Your task to perform on an android device: clear all cookies in the chrome app Image 0: 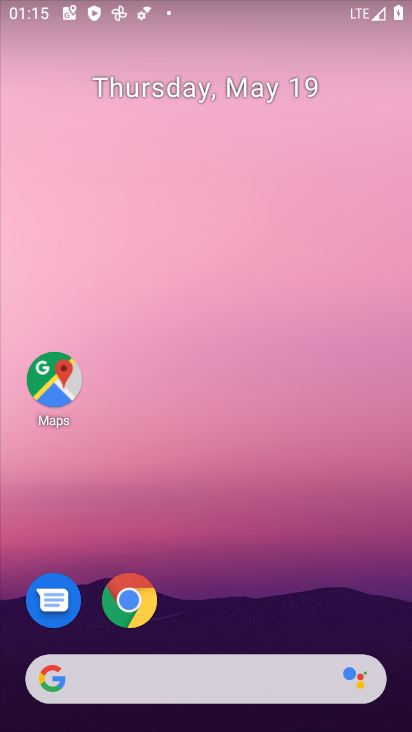
Step 0: click (129, 595)
Your task to perform on an android device: clear all cookies in the chrome app Image 1: 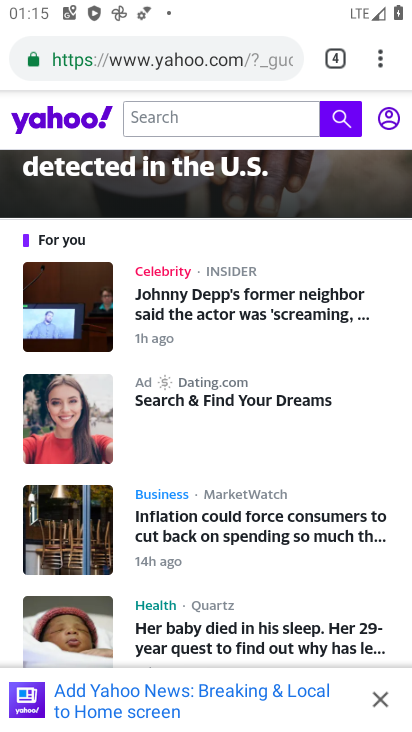
Step 1: click (386, 59)
Your task to perform on an android device: clear all cookies in the chrome app Image 2: 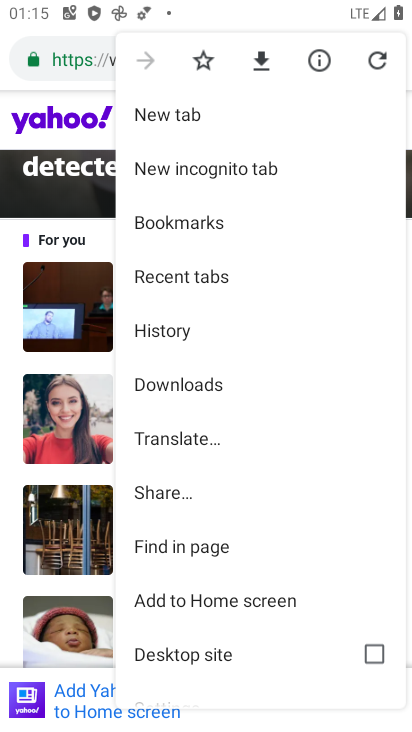
Step 2: click (168, 323)
Your task to perform on an android device: clear all cookies in the chrome app Image 3: 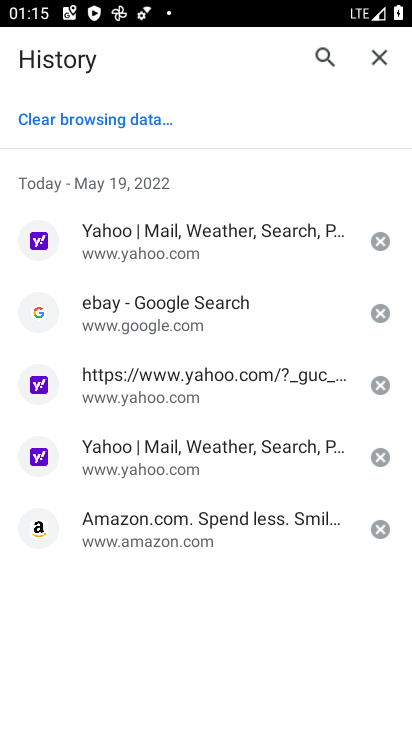
Step 3: click (113, 110)
Your task to perform on an android device: clear all cookies in the chrome app Image 4: 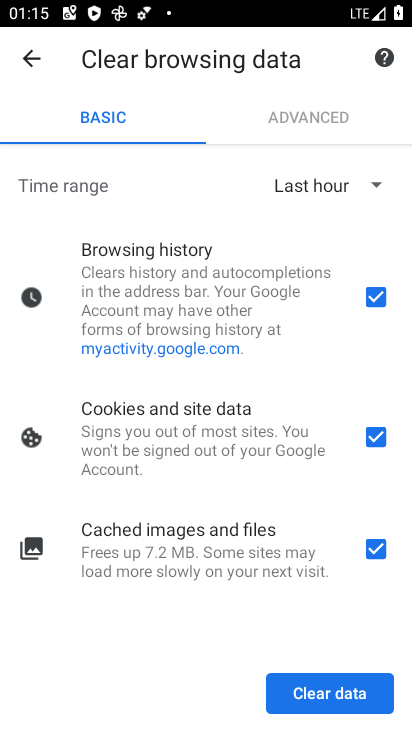
Step 4: click (379, 294)
Your task to perform on an android device: clear all cookies in the chrome app Image 5: 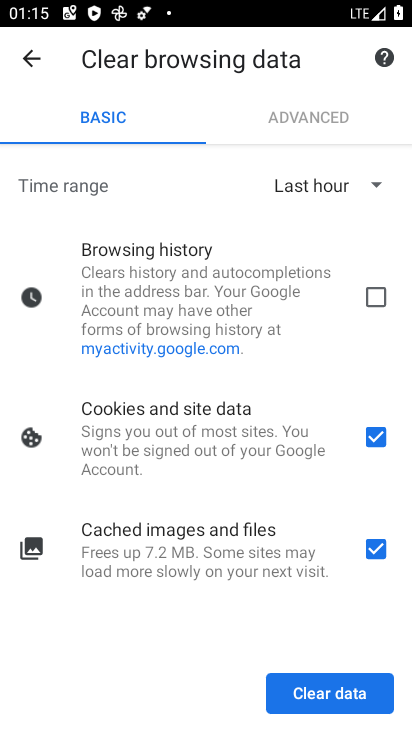
Step 5: click (370, 540)
Your task to perform on an android device: clear all cookies in the chrome app Image 6: 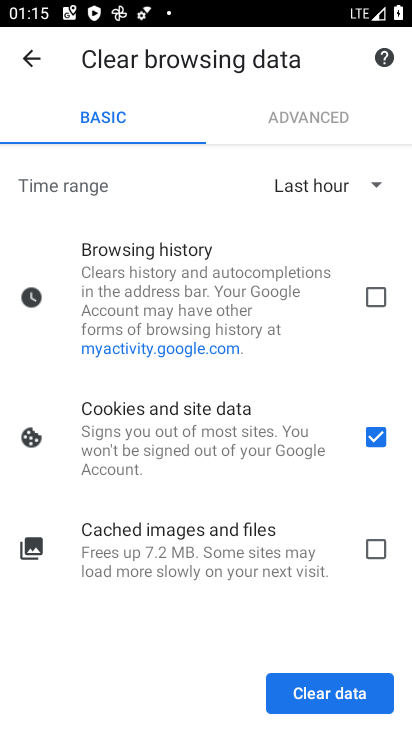
Step 6: click (331, 682)
Your task to perform on an android device: clear all cookies in the chrome app Image 7: 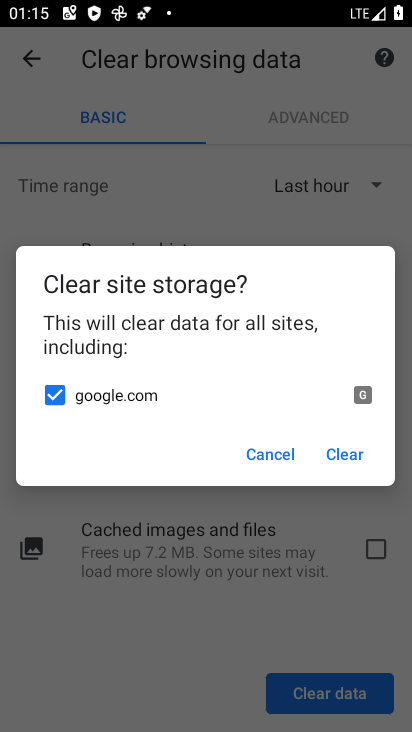
Step 7: click (343, 455)
Your task to perform on an android device: clear all cookies in the chrome app Image 8: 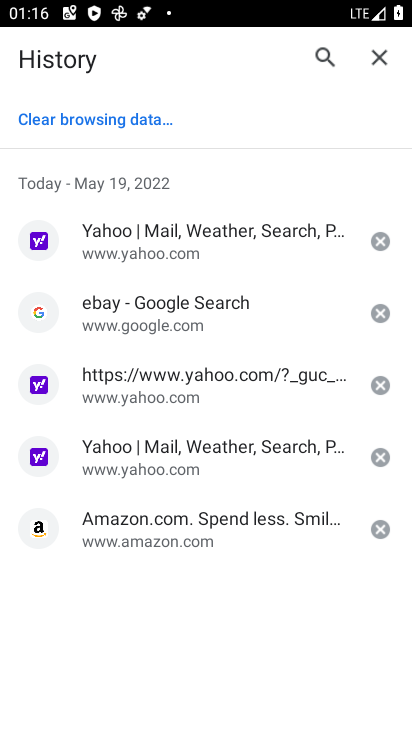
Step 8: task complete